Your task to perform on an android device: Clear all items from cart on amazon. Search for logitech g502 on amazon, select the first entry, and add it to the cart. Image 0: 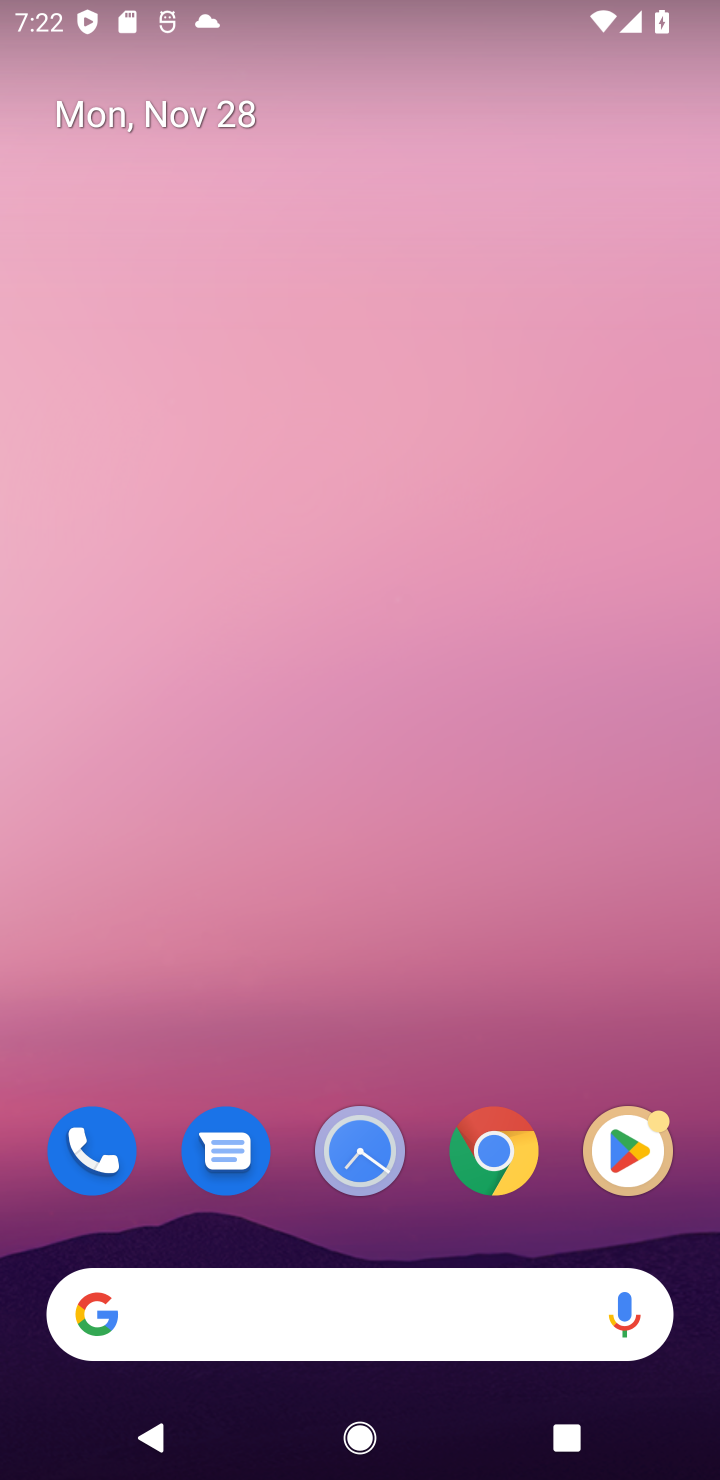
Step 0: click (423, 1282)
Your task to perform on an android device: Clear all items from cart on amazon. Search for logitech g502 on amazon, select the first entry, and add it to the cart. Image 1: 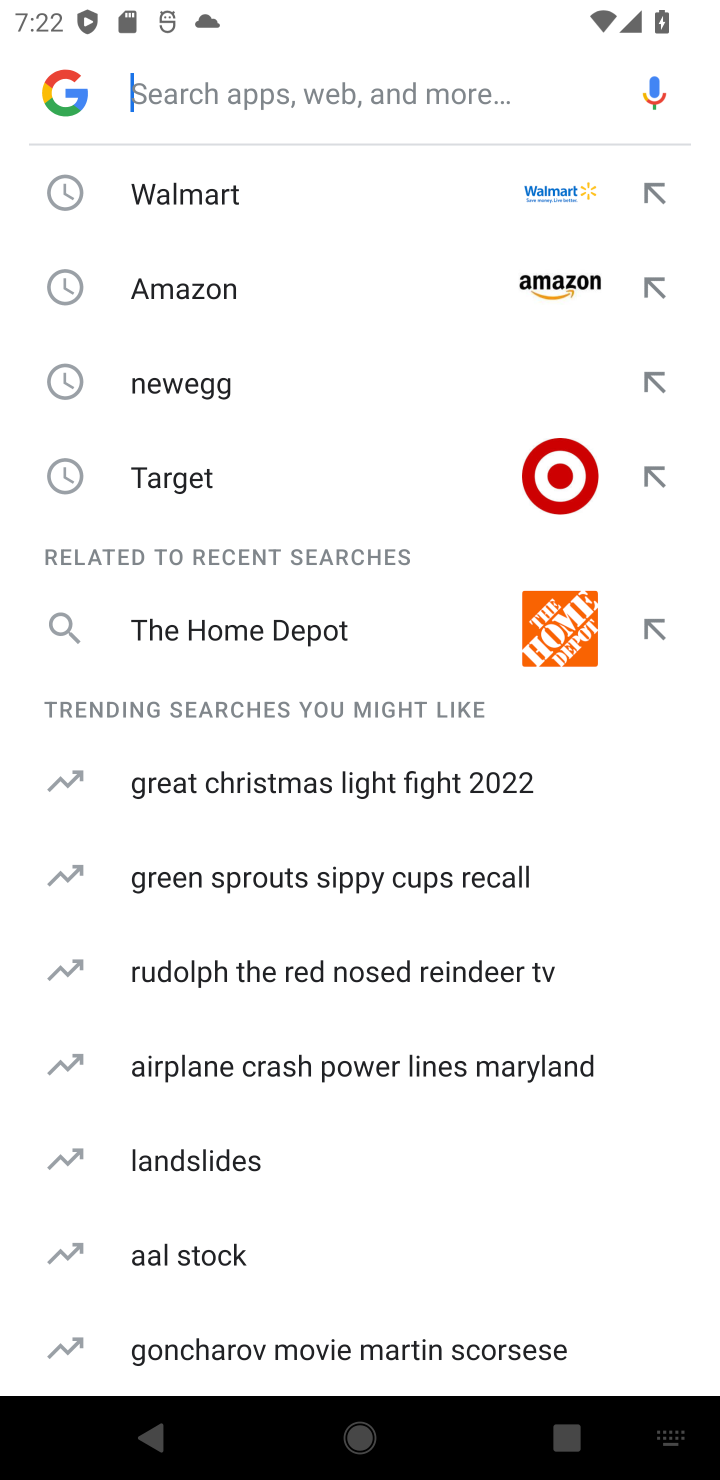
Step 1: click (276, 306)
Your task to perform on an android device: Clear all items from cart on amazon. Search for logitech g502 on amazon, select the first entry, and add it to the cart. Image 2: 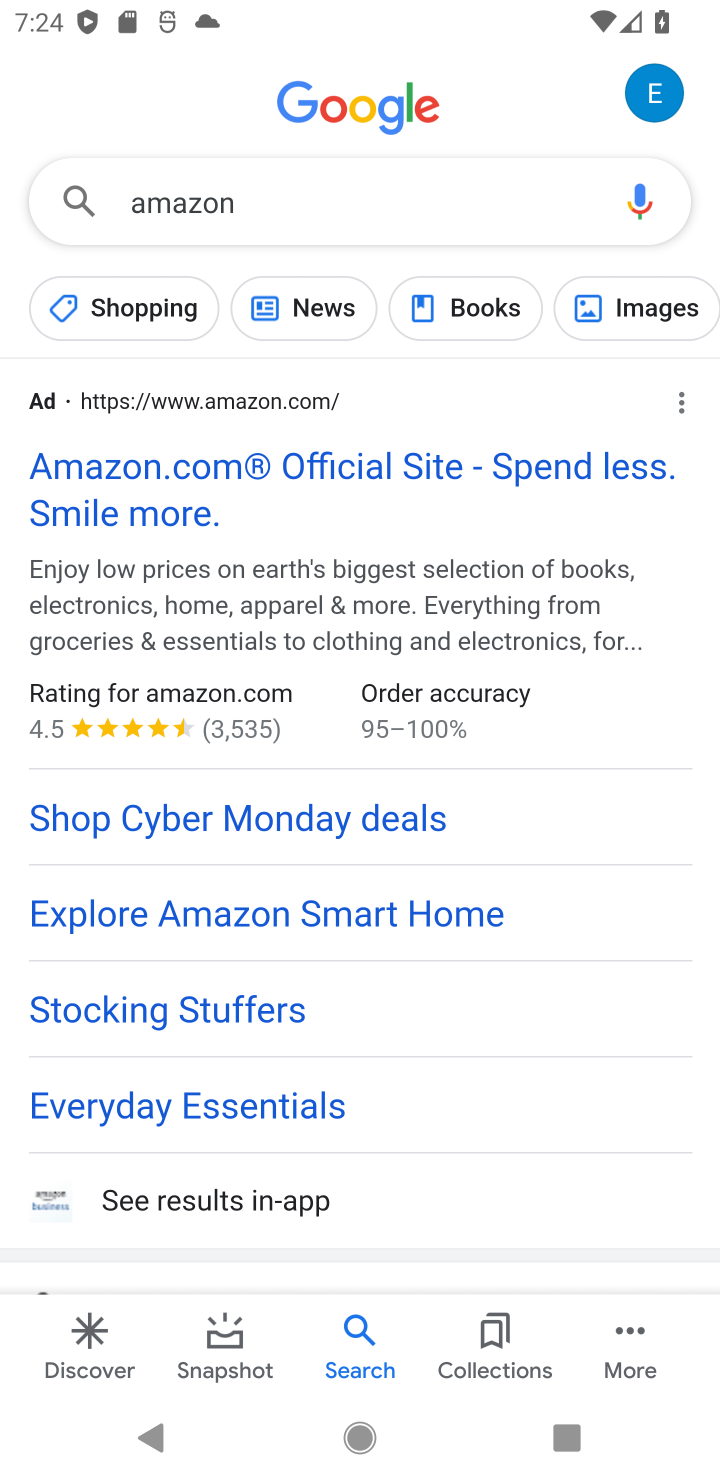
Step 2: click (290, 515)
Your task to perform on an android device: Clear all items from cart on amazon. Search for logitech g502 on amazon, select the first entry, and add it to the cart. Image 3: 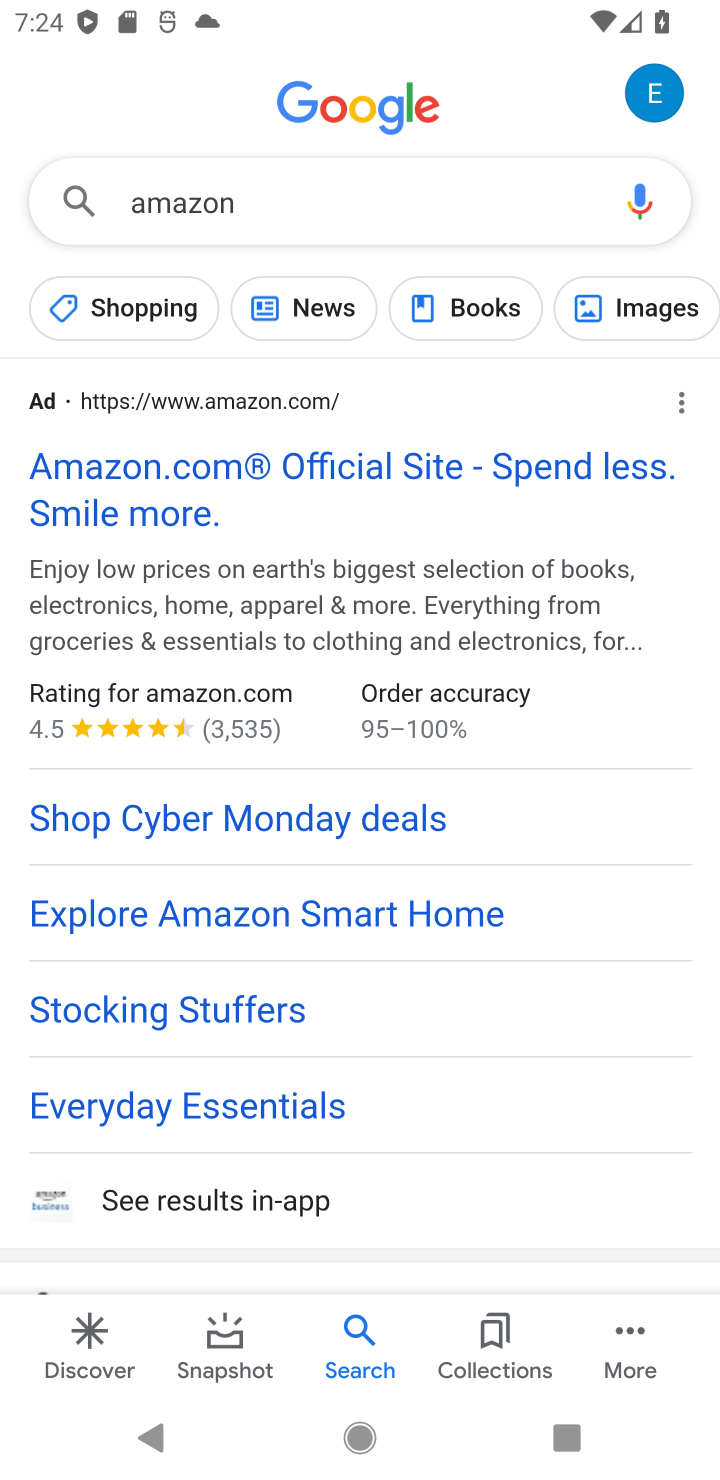
Step 3: task complete